Your task to perform on an android device: set an alarm Image 0: 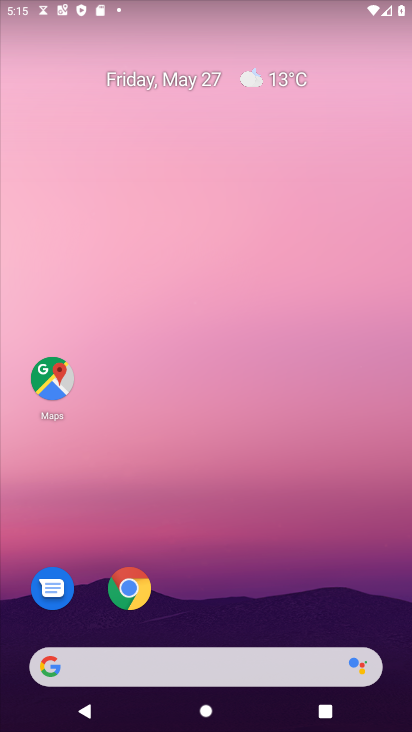
Step 0: drag from (208, 591) to (262, 72)
Your task to perform on an android device: set an alarm Image 1: 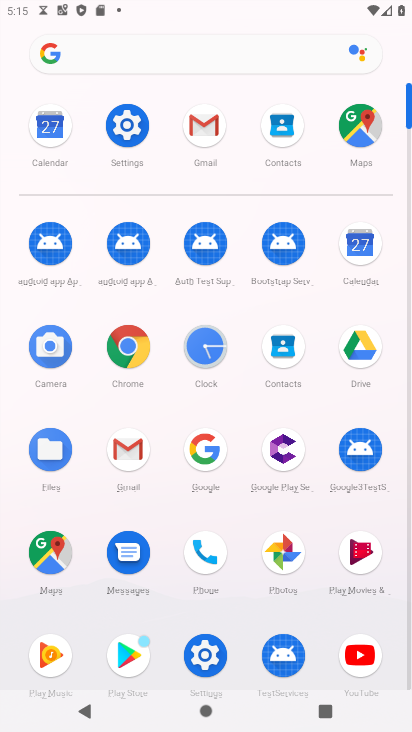
Step 1: click (206, 344)
Your task to perform on an android device: set an alarm Image 2: 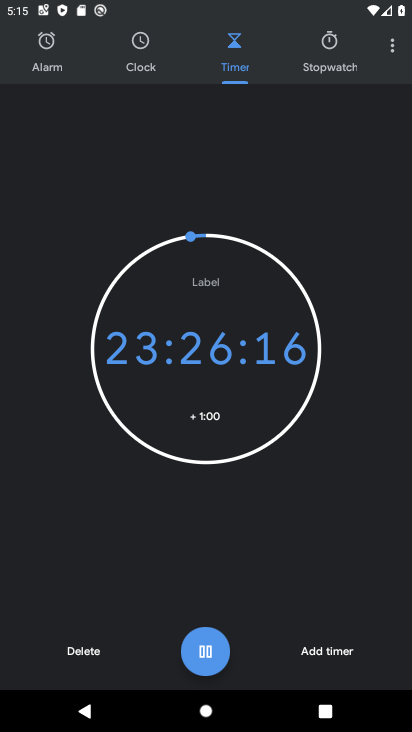
Step 2: click (47, 55)
Your task to perform on an android device: set an alarm Image 3: 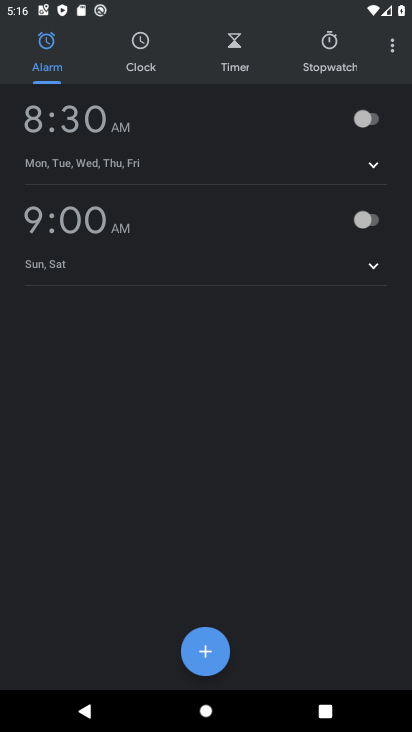
Step 3: click (367, 117)
Your task to perform on an android device: set an alarm Image 4: 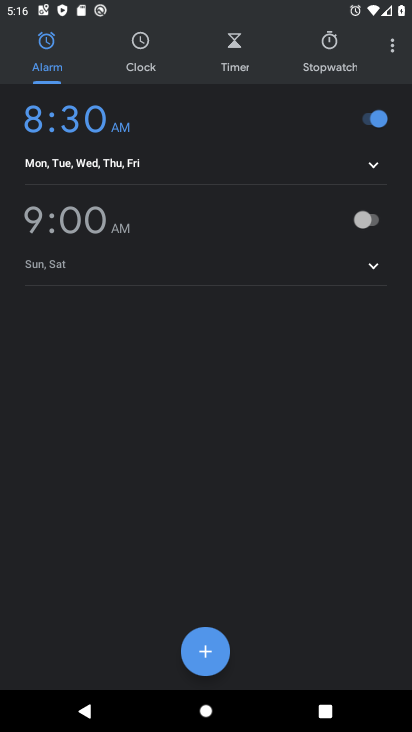
Step 4: task complete